Your task to perform on an android device: empty trash in google photos Image 0: 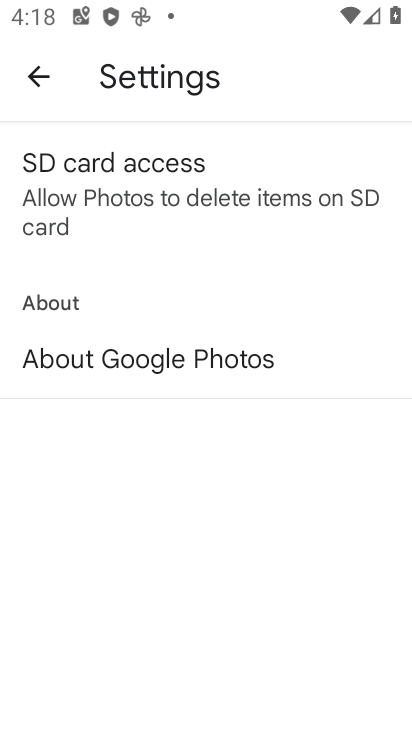
Step 0: press back button
Your task to perform on an android device: empty trash in google photos Image 1: 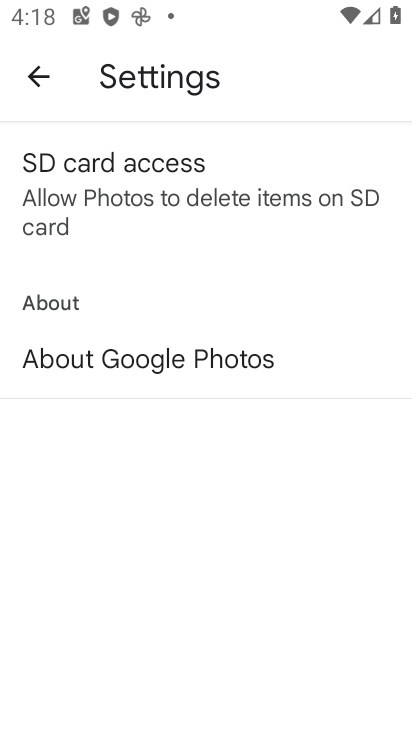
Step 1: press back button
Your task to perform on an android device: empty trash in google photos Image 2: 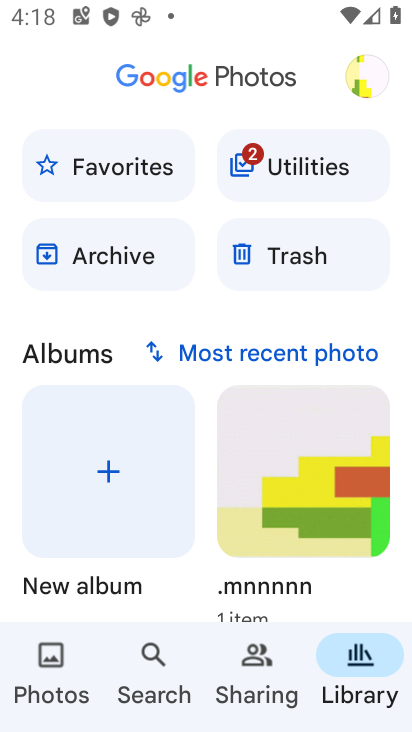
Step 2: click (294, 262)
Your task to perform on an android device: empty trash in google photos Image 3: 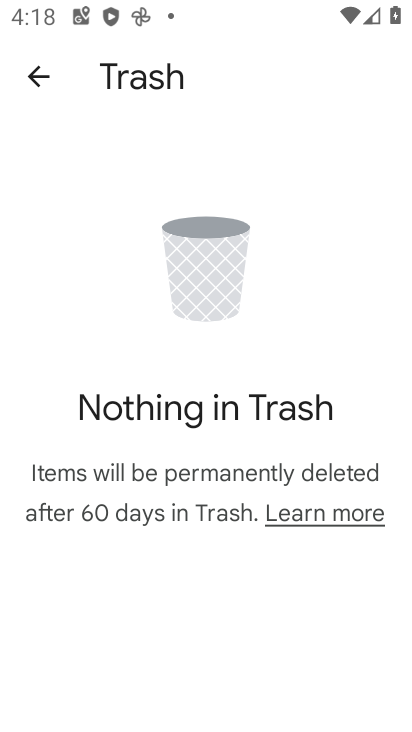
Step 3: task complete